Your task to perform on an android device: Open ESPN.com Image 0: 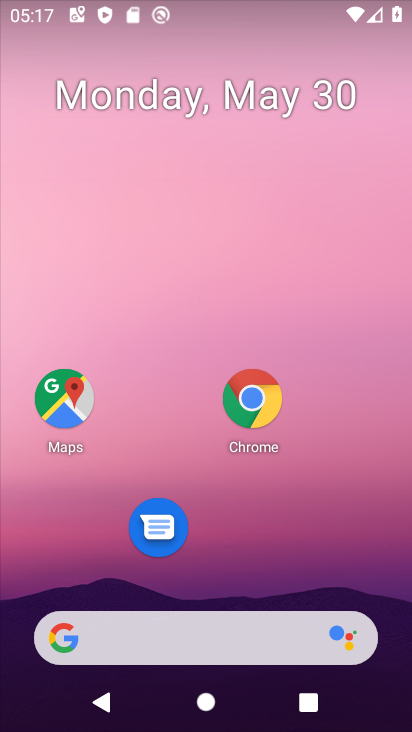
Step 0: click (254, 395)
Your task to perform on an android device: Open ESPN.com Image 1: 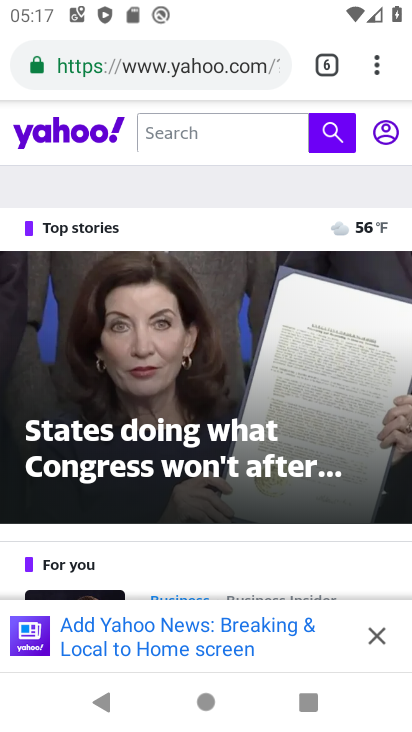
Step 1: click (374, 68)
Your task to perform on an android device: Open ESPN.com Image 2: 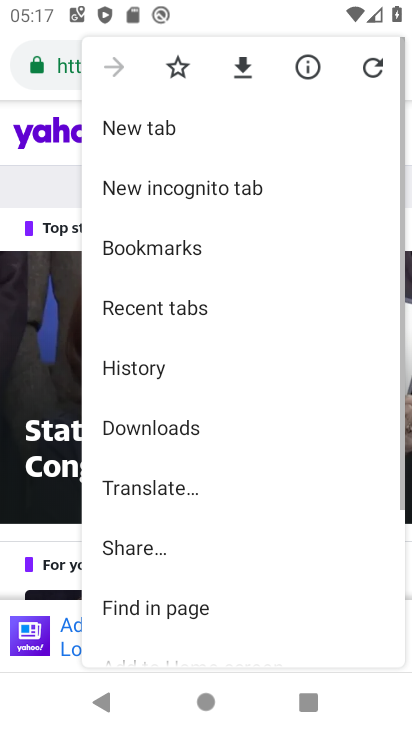
Step 2: click (106, 127)
Your task to perform on an android device: Open ESPN.com Image 3: 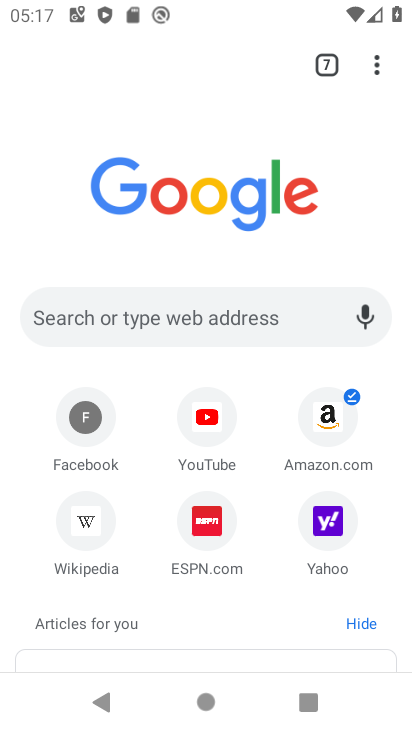
Step 3: click (209, 513)
Your task to perform on an android device: Open ESPN.com Image 4: 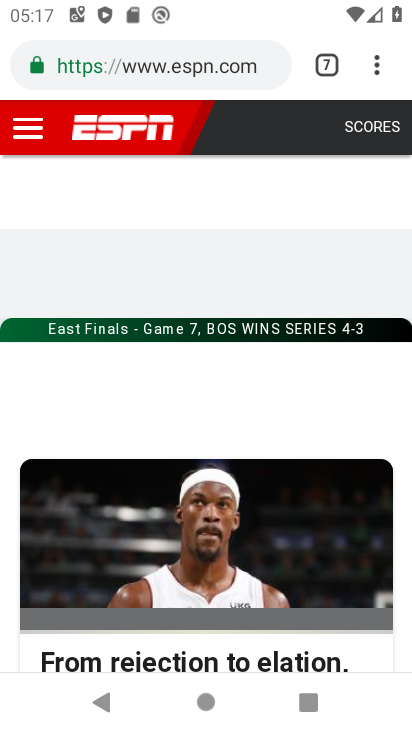
Step 4: task complete